Your task to perform on an android device: show emergency info Image 0: 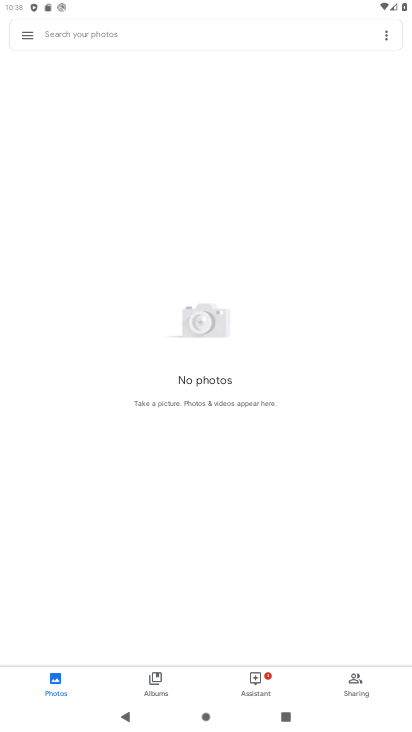
Step 0: press home button
Your task to perform on an android device: show emergency info Image 1: 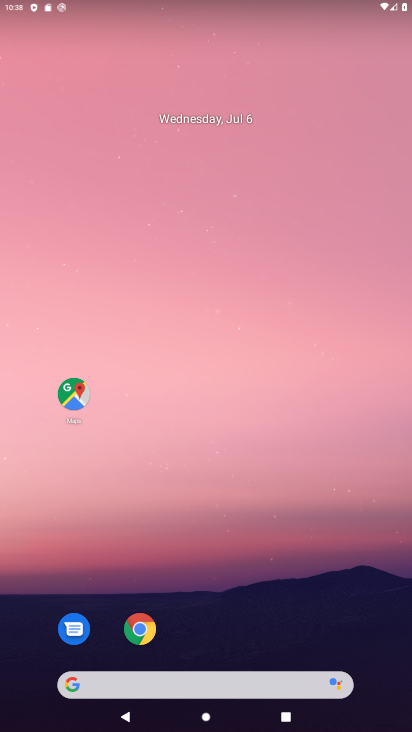
Step 1: drag from (212, 638) to (229, 49)
Your task to perform on an android device: show emergency info Image 2: 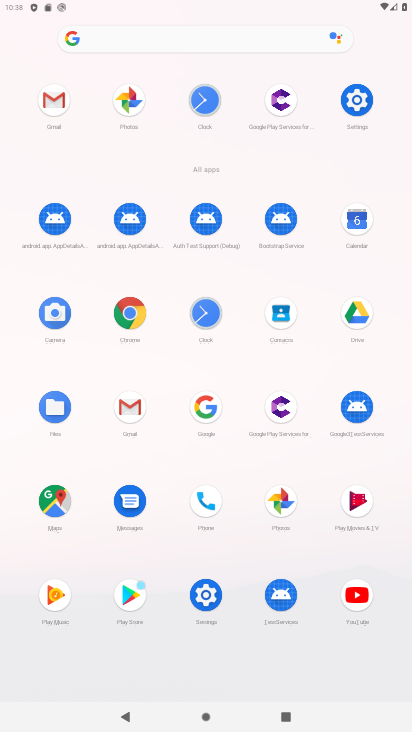
Step 2: click (351, 100)
Your task to perform on an android device: show emergency info Image 3: 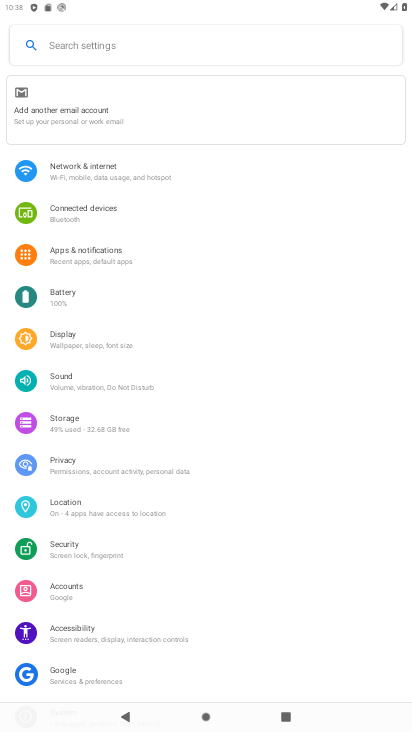
Step 3: drag from (199, 648) to (265, 169)
Your task to perform on an android device: show emergency info Image 4: 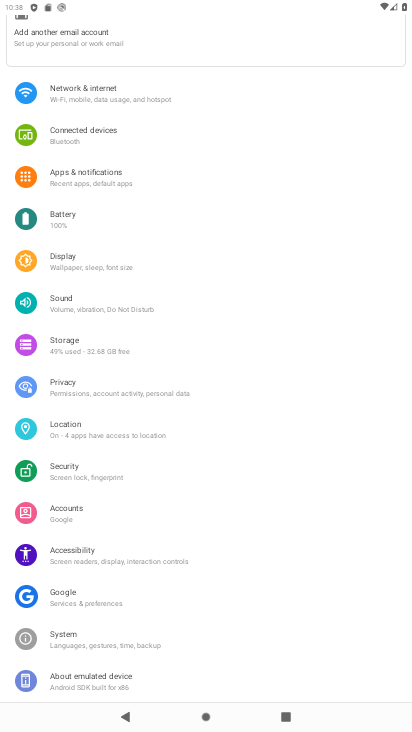
Step 4: click (123, 683)
Your task to perform on an android device: show emergency info Image 5: 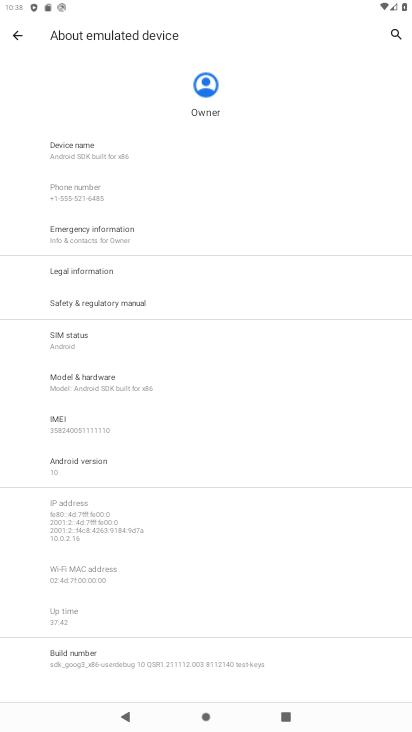
Step 5: click (139, 681)
Your task to perform on an android device: show emergency info Image 6: 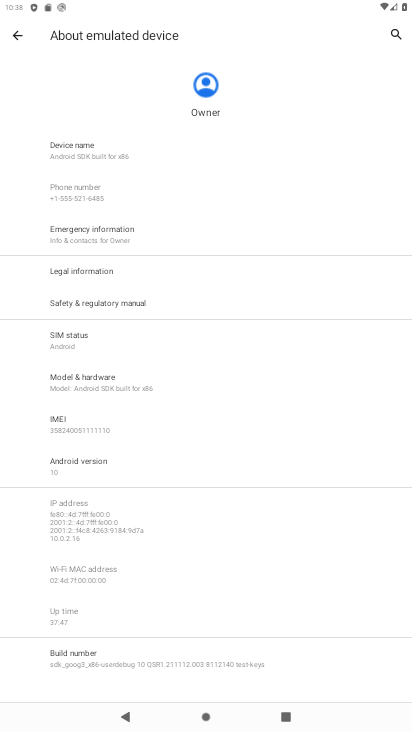
Step 6: click (132, 233)
Your task to perform on an android device: show emergency info Image 7: 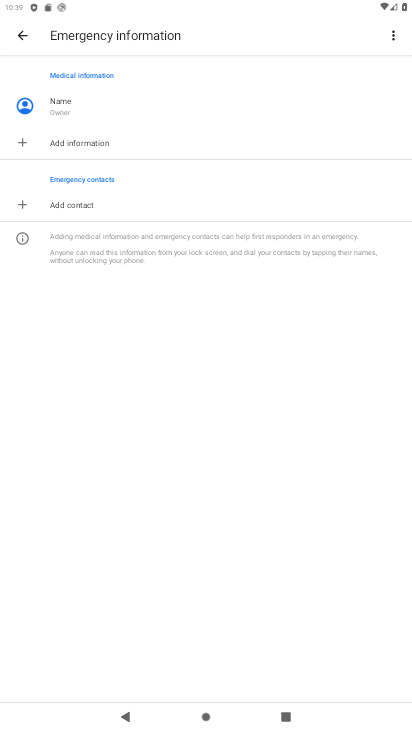
Step 7: click (132, 233)
Your task to perform on an android device: show emergency info Image 8: 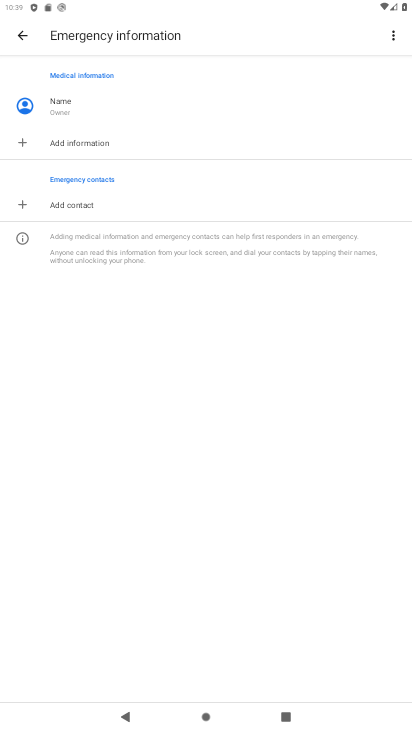
Step 8: task complete